Your task to perform on an android device: uninstall "Airtel Thanks" Image 0: 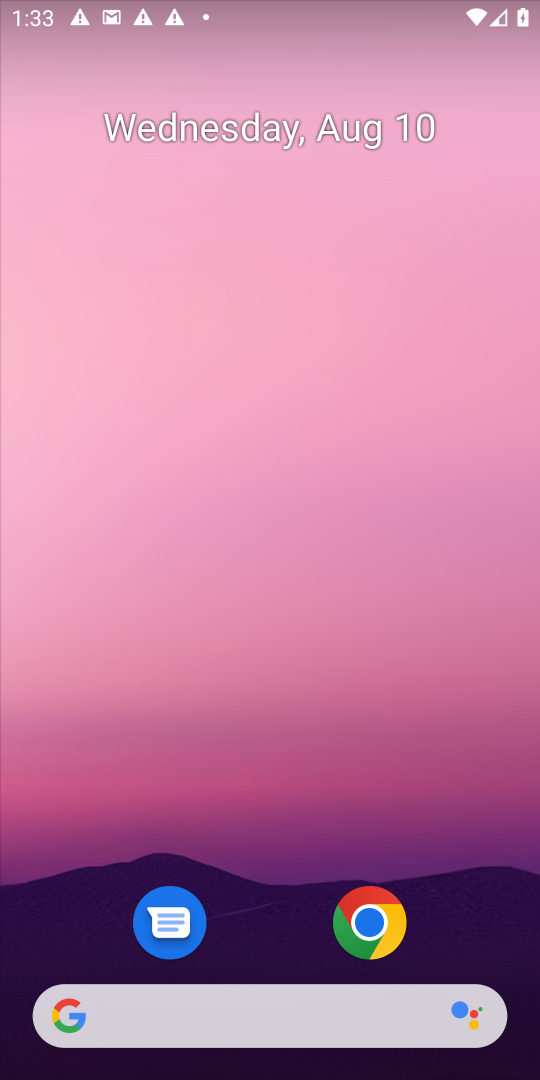
Step 0: drag from (235, 937) to (263, 93)
Your task to perform on an android device: uninstall "Airtel Thanks" Image 1: 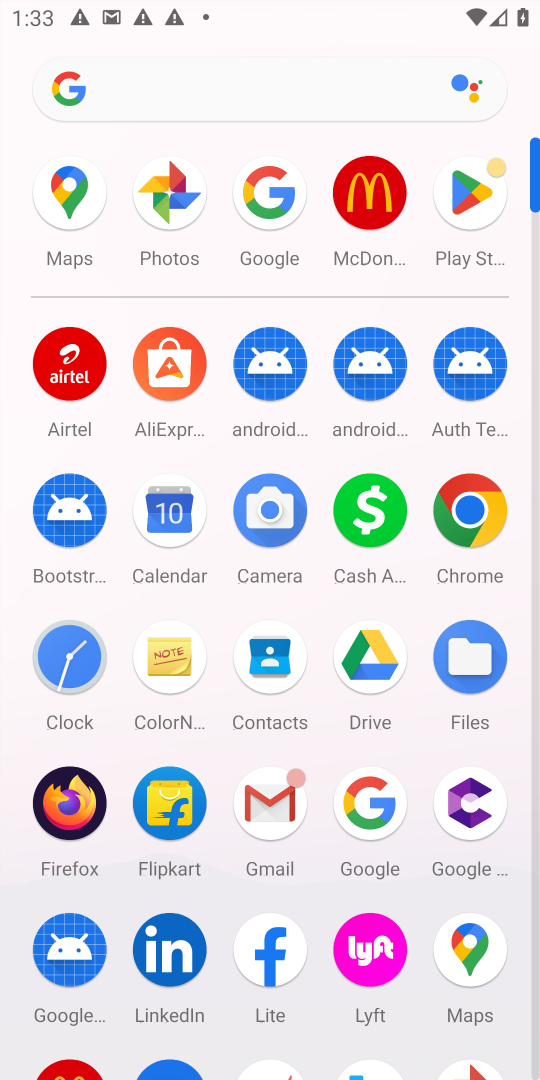
Step 1: click (469, 192)
Your task to perform on an android device: uninstall "Airtel Thanks" Image 2: 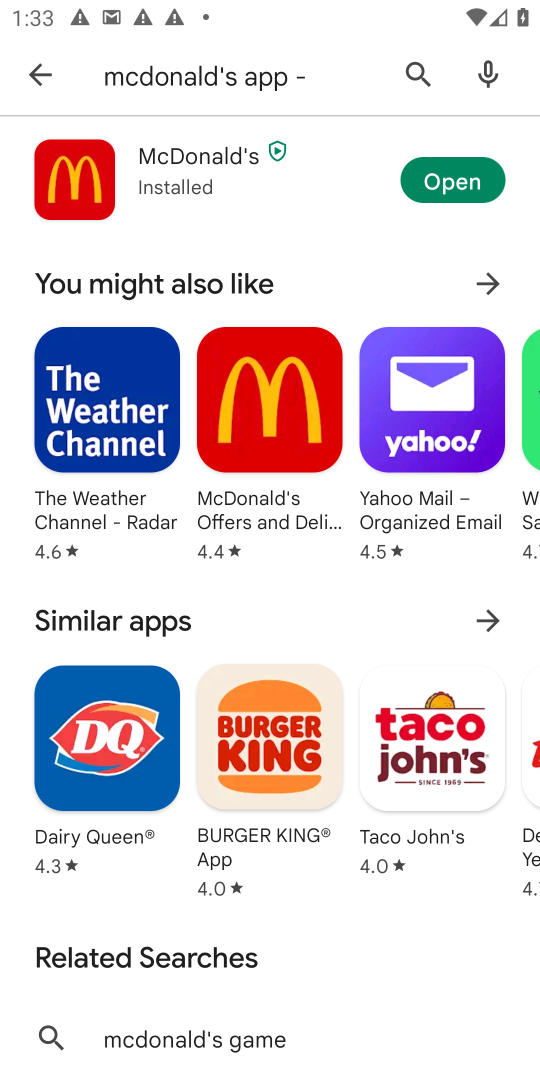
Step 2: click (54, 83)
Your task to perform on an android device: uninstall "Airtel Thanks" Image 3: 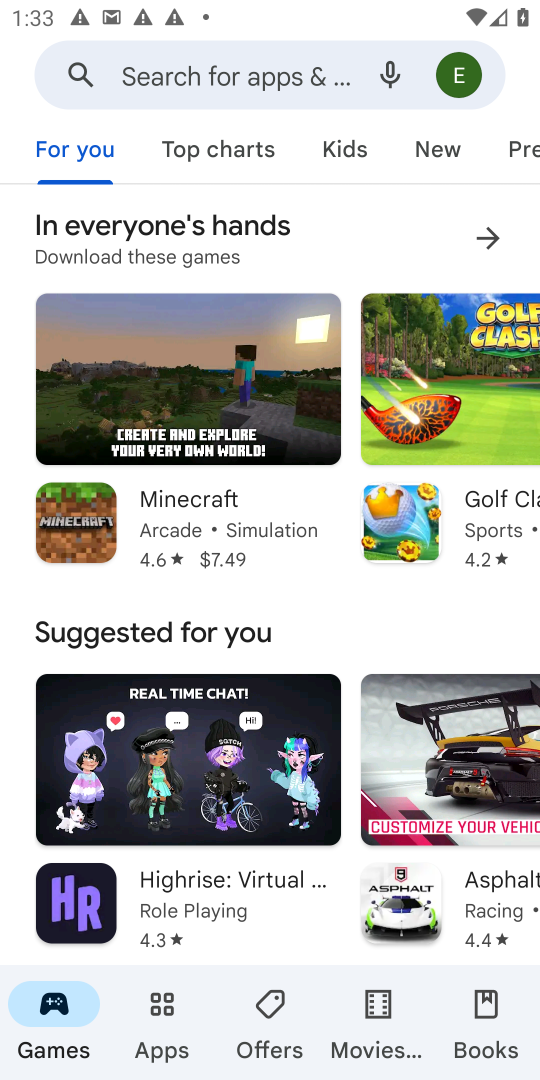
Step 3: click (191, 81)
Your task to perform on an android device: uninstall "Airtel Thanks" Image 4: 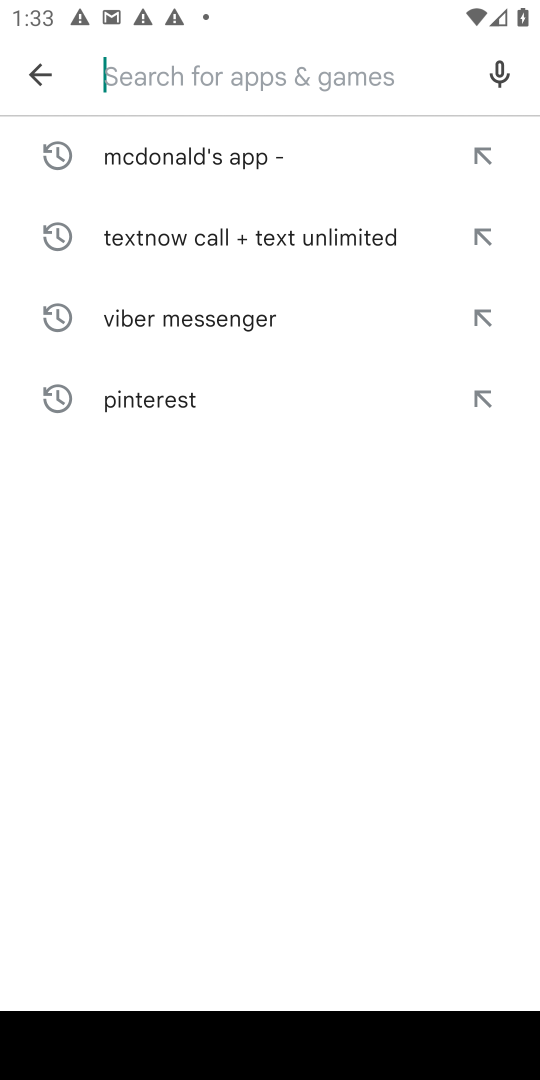
Step 4: type "Airtel Thanks"
Your task to perform on an android device: uninstall "Airtel Thanks" Image 5: 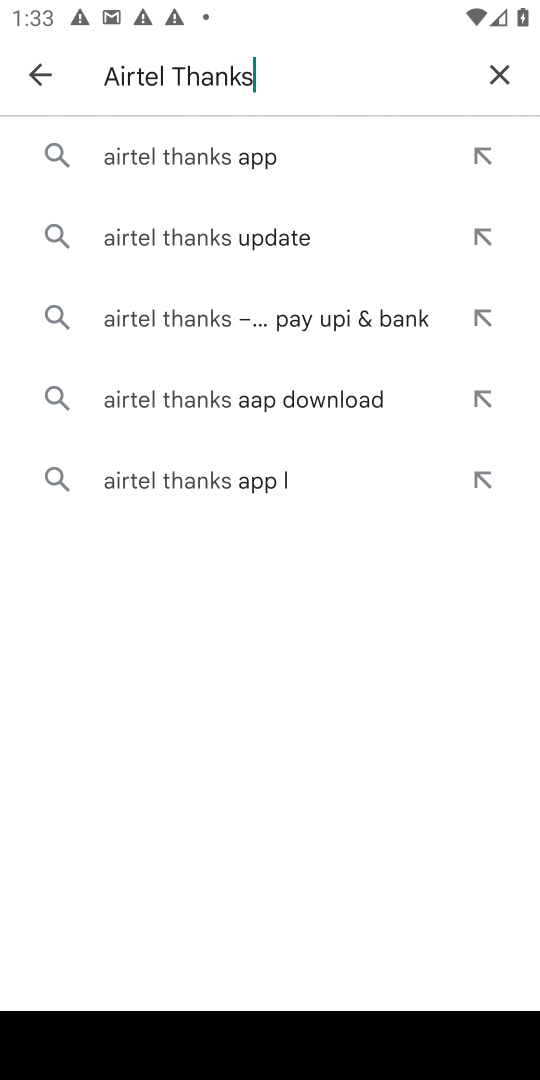
Step 5: click (237, 155)
Your task to perform on an android device: uninstall "Airtel Thanks" Image 6: 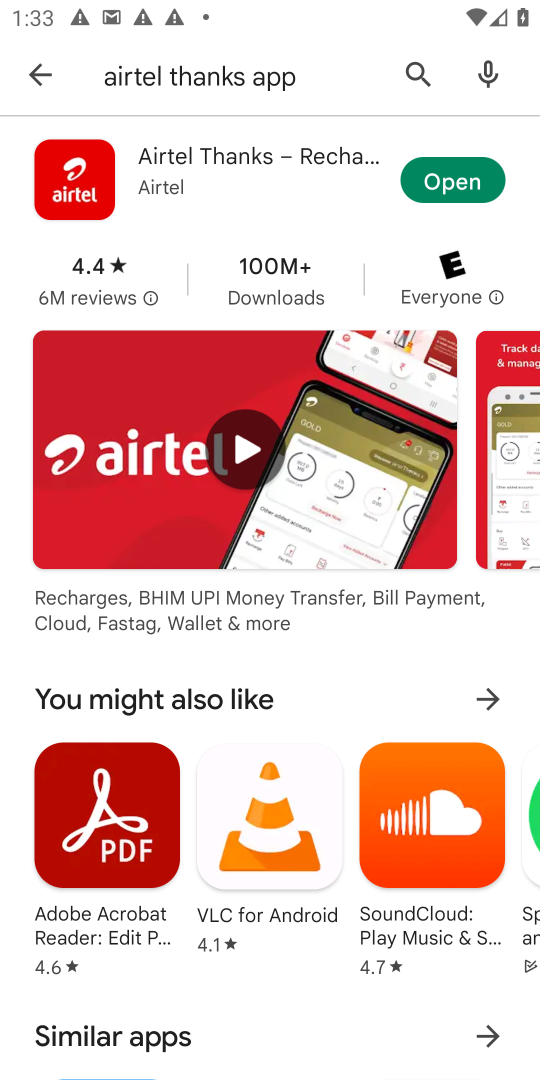
Step 6: task complete